Your task to perform on an android device: Open CNN.com Image 0: 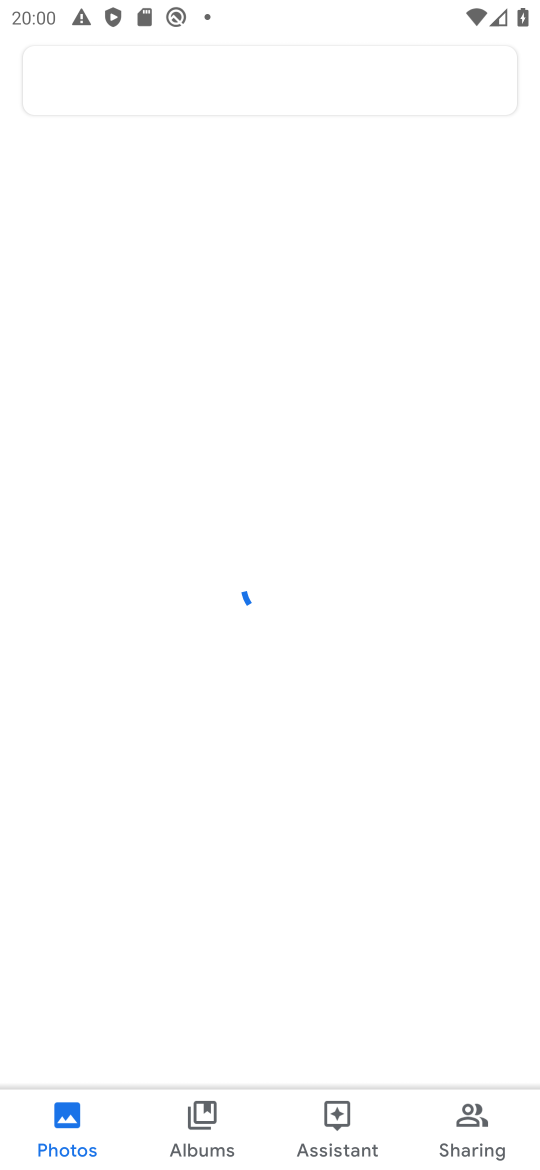
Step 0: press home button
Your task to perform on an android device: Open CNN.com Image 1: 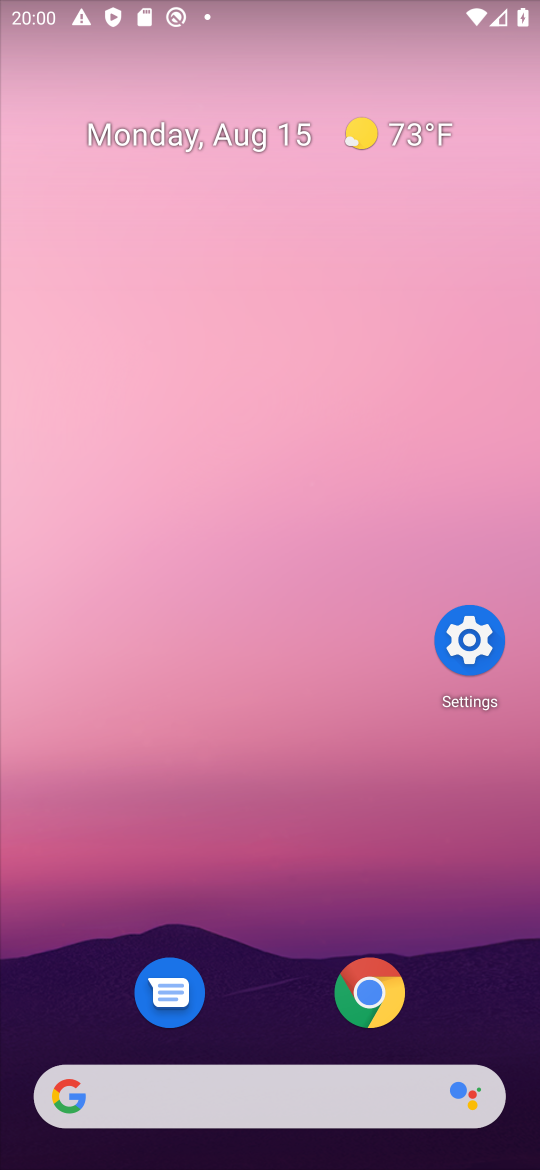
Step 1: click (366, 988)
Your task to perform on an android device: Open CNN.com Image 2: 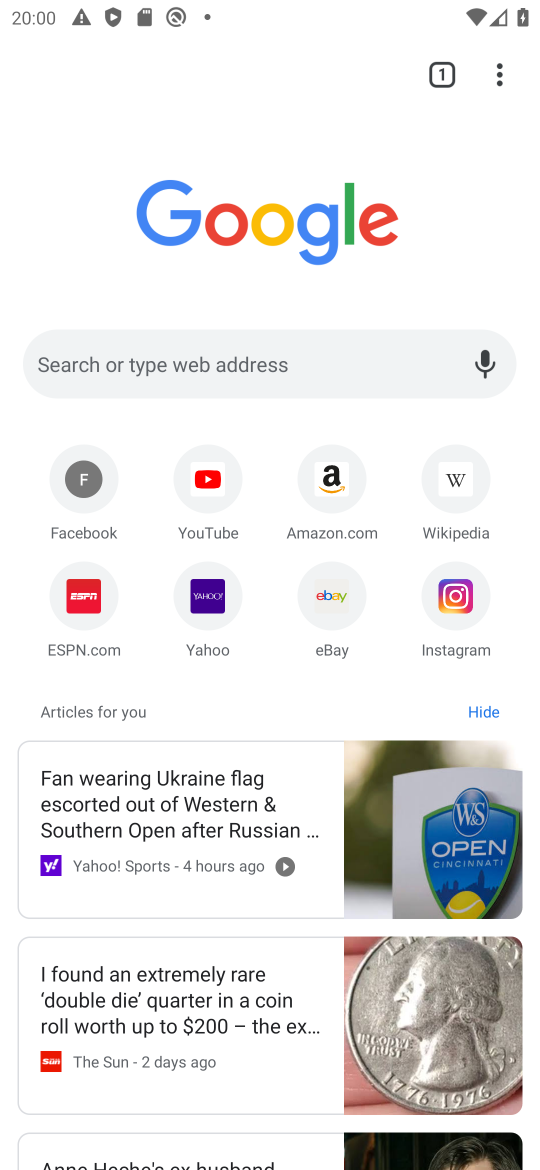
Step 2: click (179, 364)
Your task to perform on an android device: Open CNN.com Image 3: 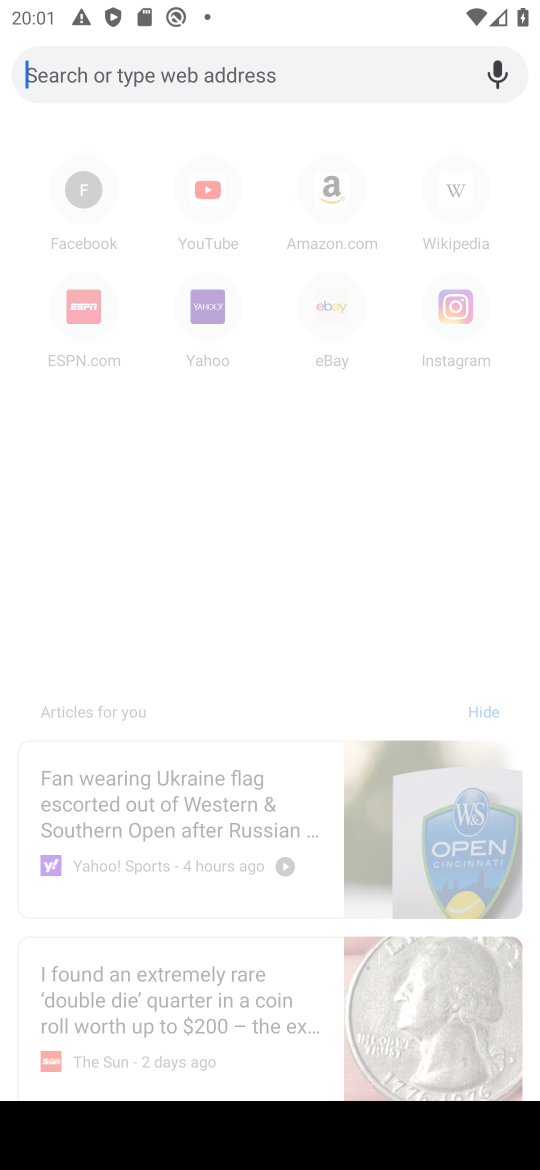
Step 3: type "cnn.com"
Your task to perform on an android device: Open CNN.com Image 4: 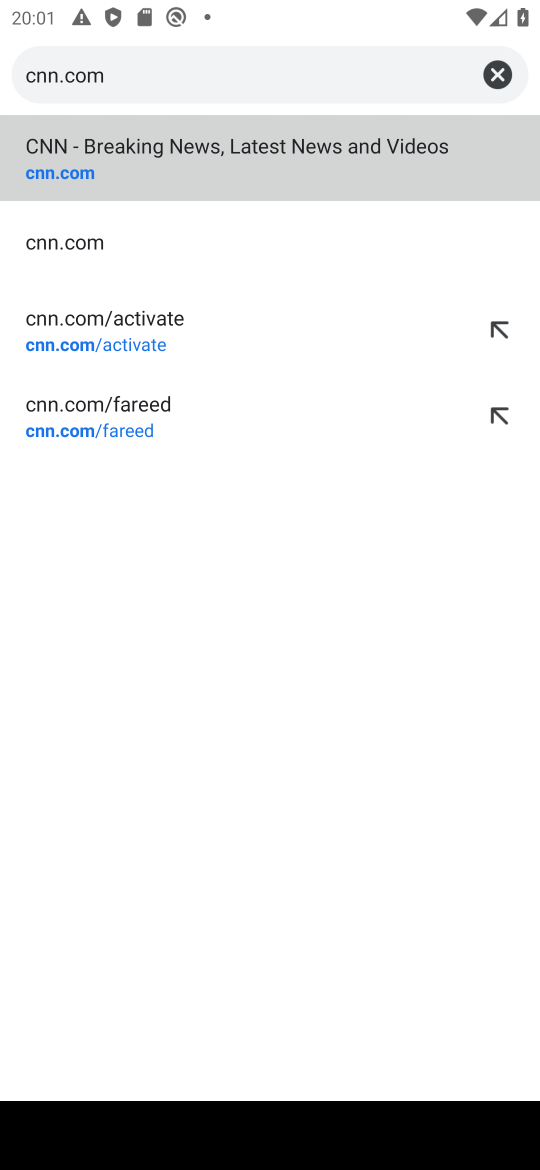
Step 4: click (255, 137)
Your task to perform on an android device: Open CNN.com Image 5: 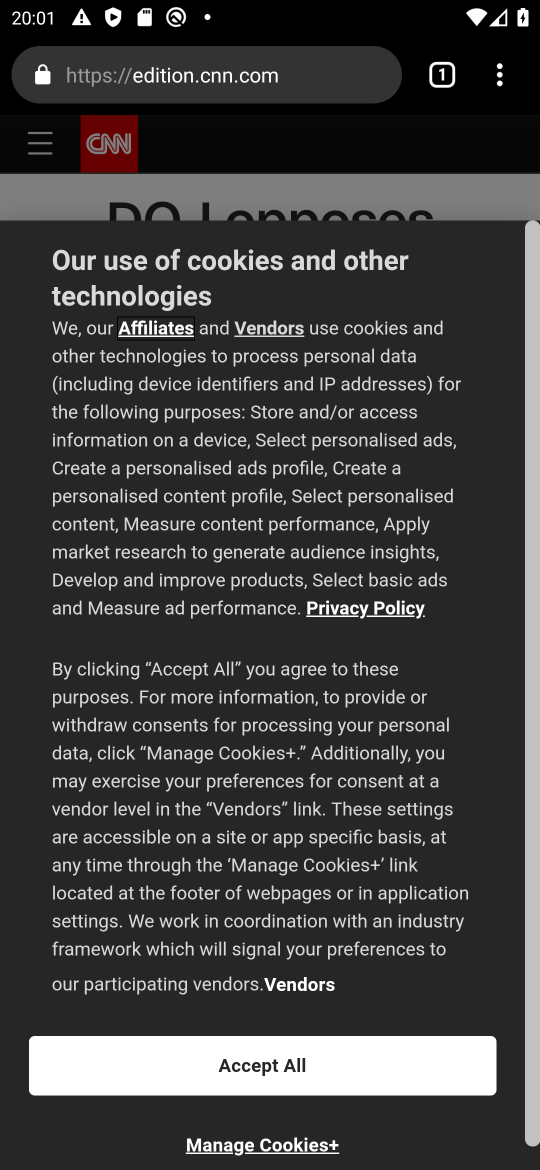
Step 5: click (236, 1073)
Your task to perform on an android device: Open CNN.com Image 6: 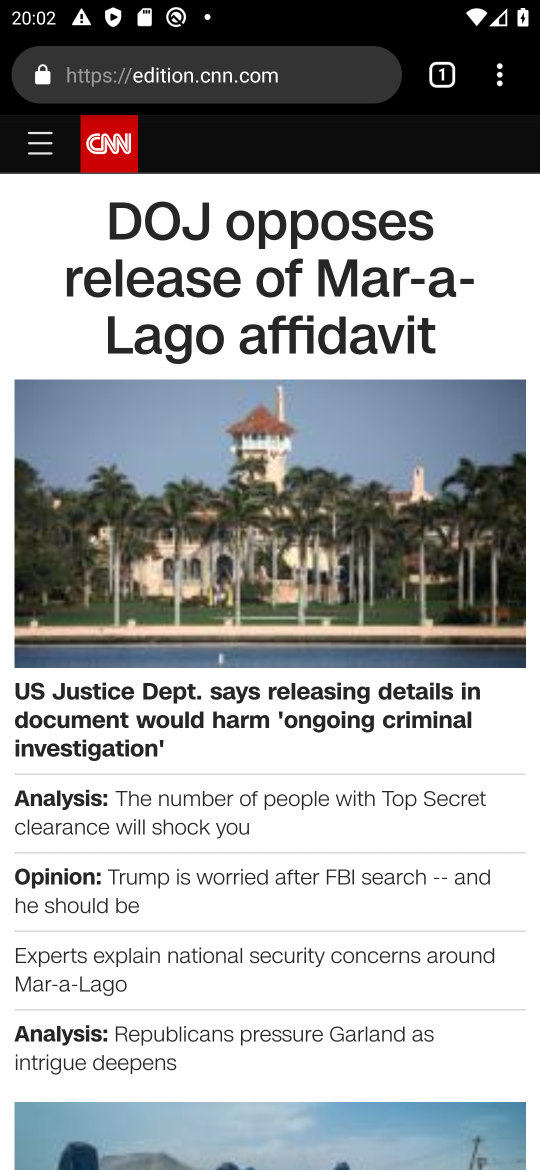
Step 6: task complete